Your task to perform on an android device: Go to Amazon Image 0: 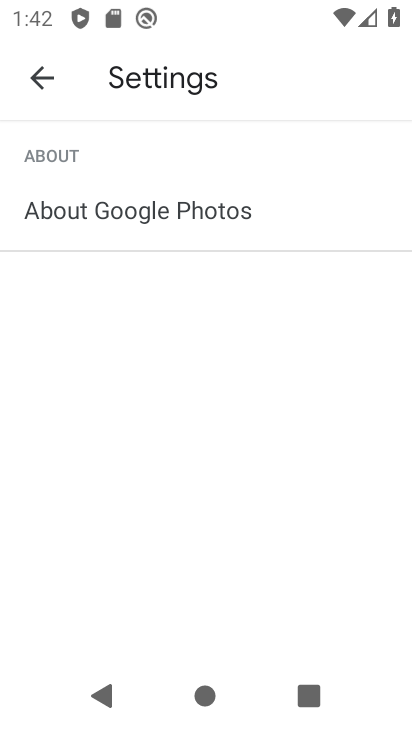
Step 0: press home button
Your task to perform on an android device: Go to Amazon Image 1: 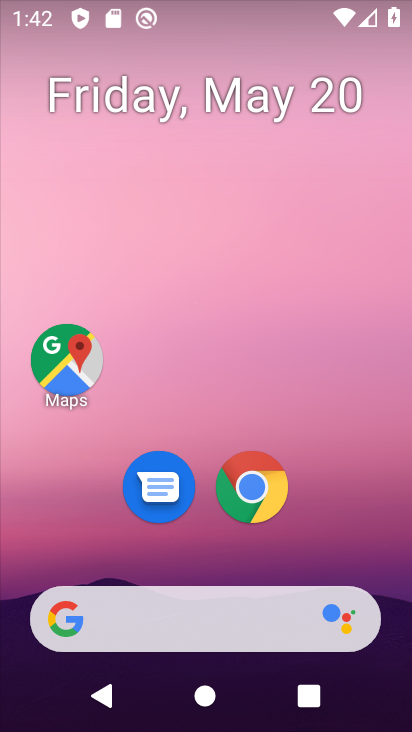
Step 1: click (230, 492)
Your task to perform on an android device: Go to Amazon Image 2: 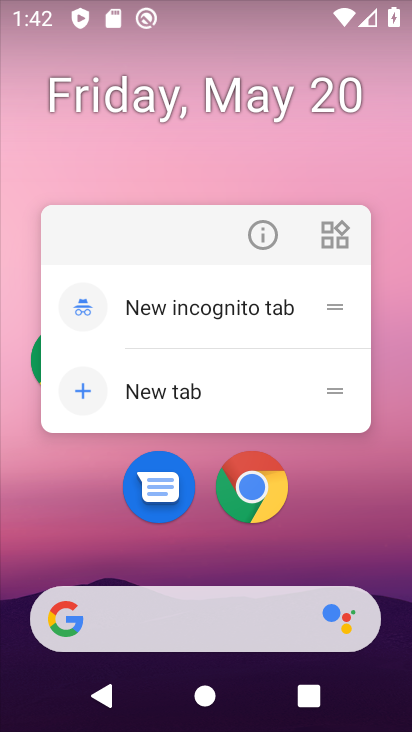
Step 2: click (247, 481)
Your task to perform on an android device: Go to Amazon Image 3: 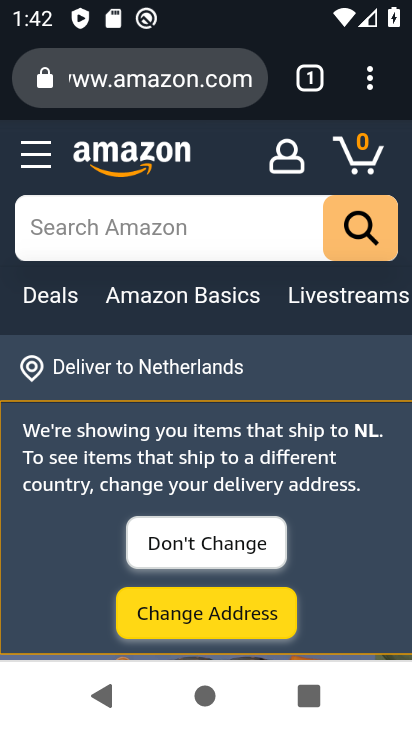
Step 3: task complete